Your task to perform on an android device: What's the weather today? Image 0: 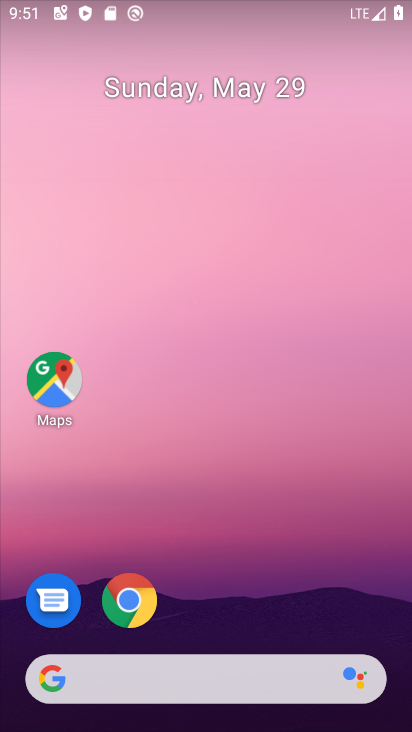
Step 0: drag from (236, 625) to (247, 38)
Your task to perform on an android device: What's the weather today? Image 1: 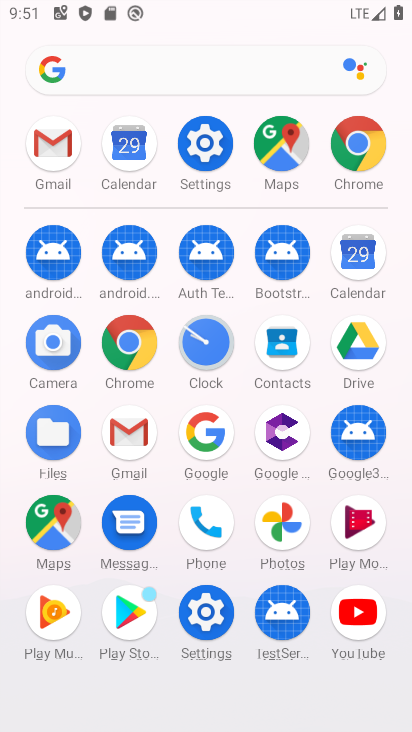
Step 1: click (287, 144)
Your task to perform on an android device: What's the weather today? Image 2: 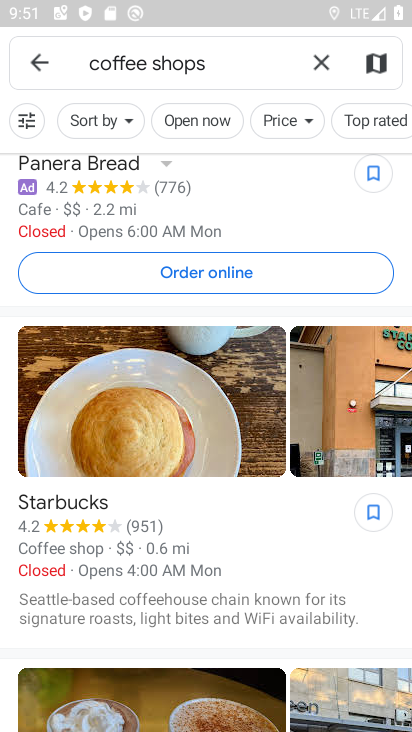
Step 2: press home button
Your task to perform on an android device: What's the weather today? Image 3: 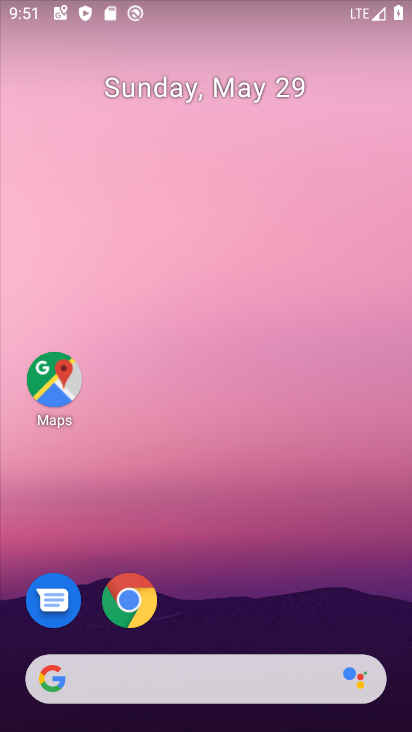
Step 3: click (131, 596)
Your task to perform on an android device: What's the weather today? Image 4: 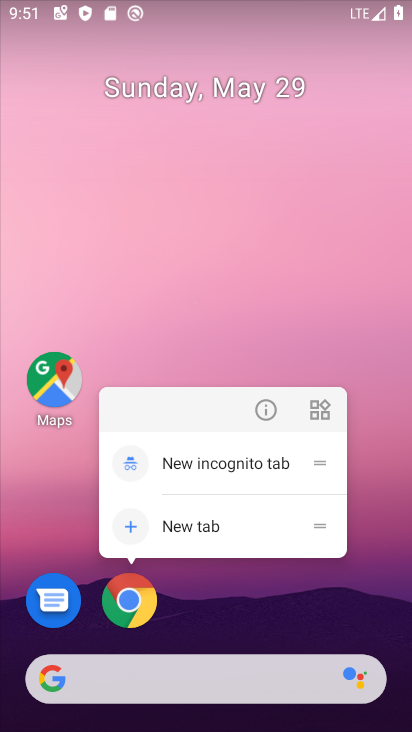
Step 4: click (131, 596)
Your task to perform on an android device: What's the weather today? Image 5: 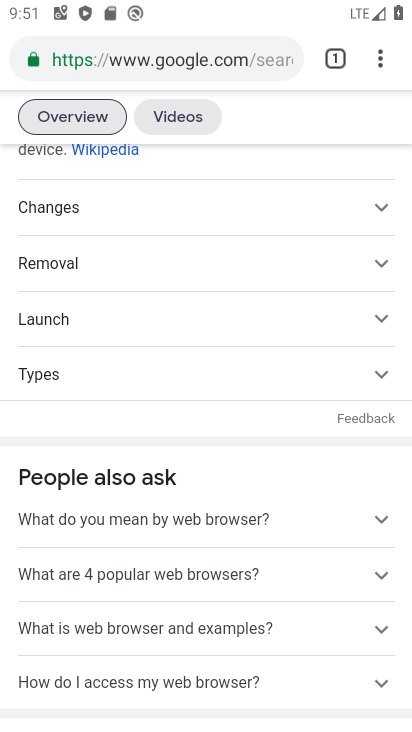
Step 5: click (238, 60)
Your task to perform on an android device: What's the weather today? Image 6: 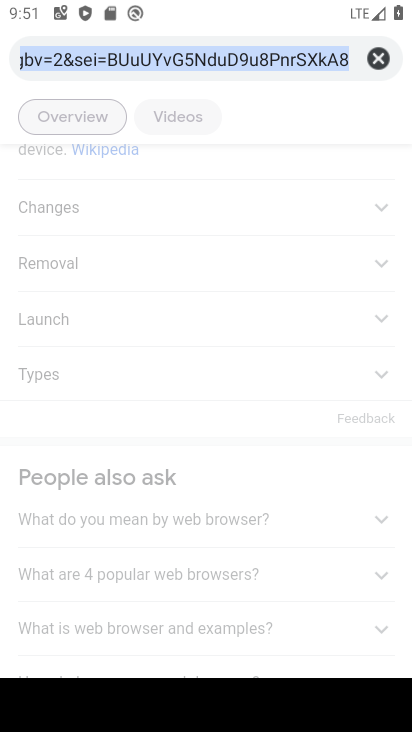
Step 6: click (374, 55)
Your task to perform on an android device: What's the weather today? Image 7: 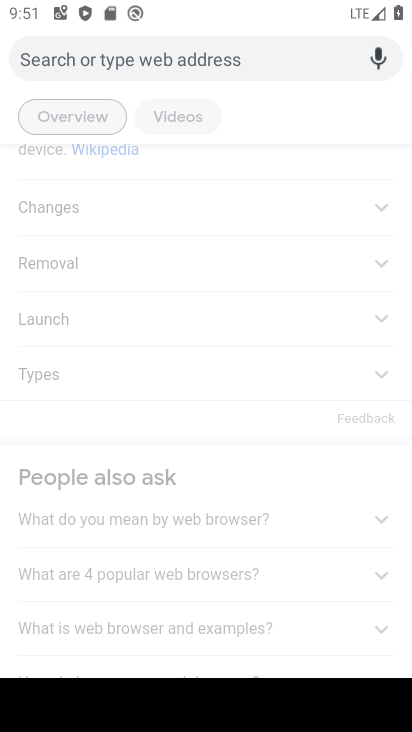
Step 7: type "What's the weather today?"
Your task to perform on an android device: What's the weather today? Image 8: 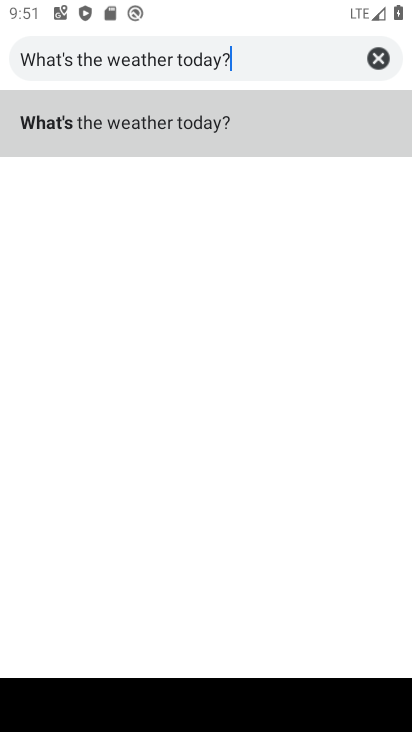
Step 8: click (161, 126)
Your task to perform on an android device: What's the weather today? Image 9: 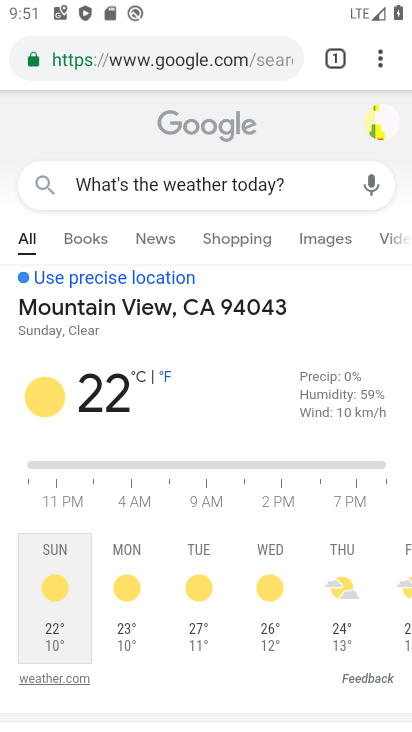
Step 9: task complete